Your task to perform on an android device: delete browsing data in the chrome app Image 0: 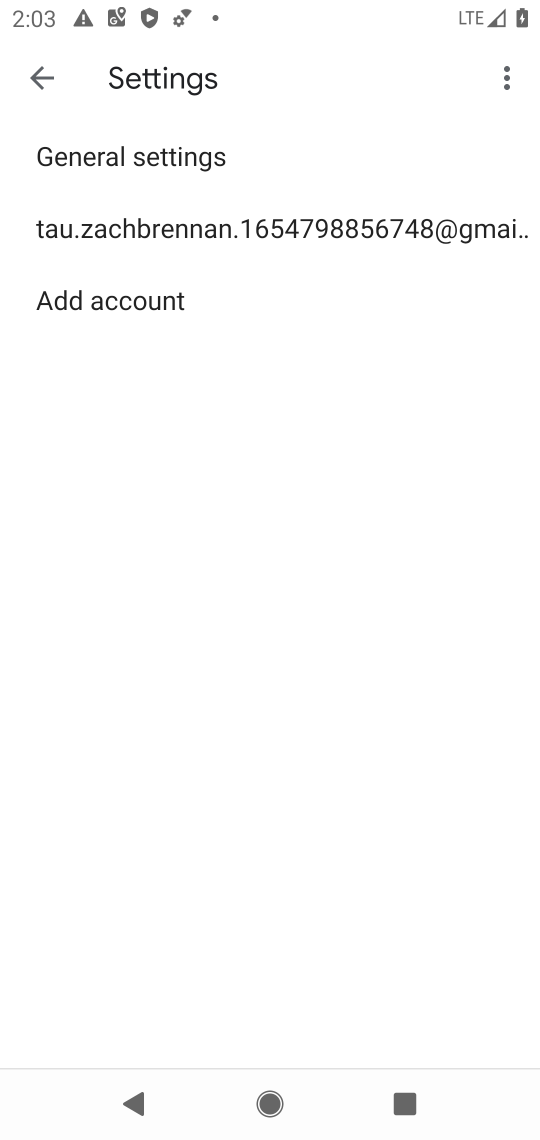
Step 0: press home button
Your task to perform on an android device: delete browsing data in the chrome app Image 1: 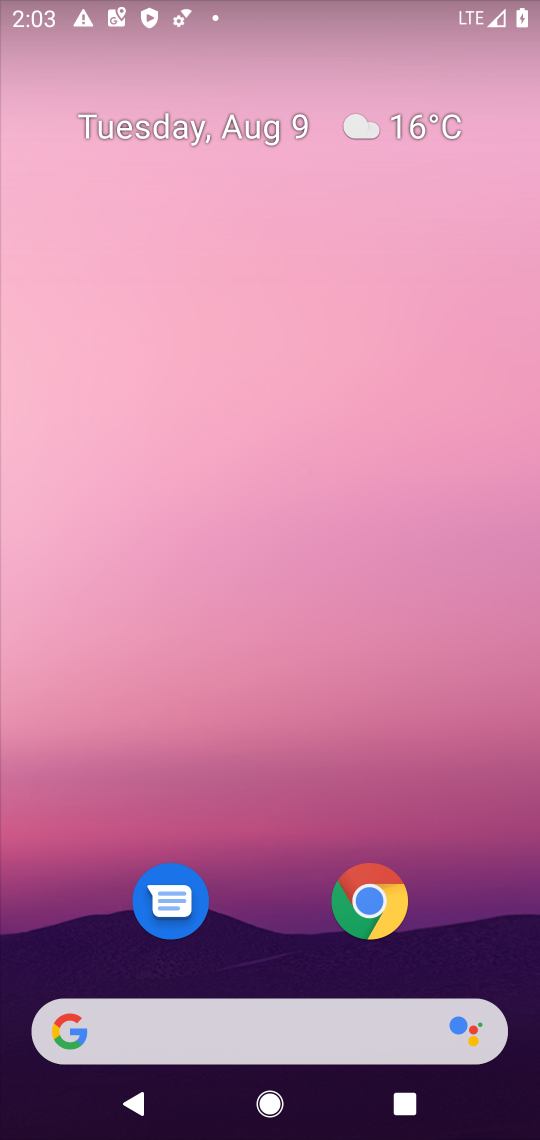
Step 1: click (369, 904)
Your task to perform on an android device: delete browsing data in the chrome app Image 2: 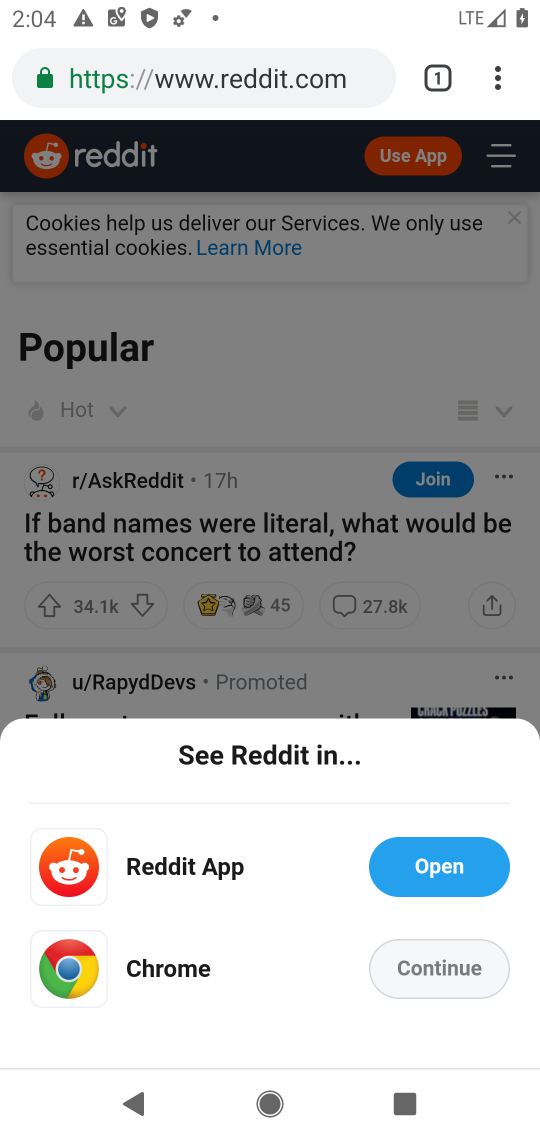
Step 2: click (487, 80)
Your task to perform on an android device: delete browsing data in the chrome app Image 3: 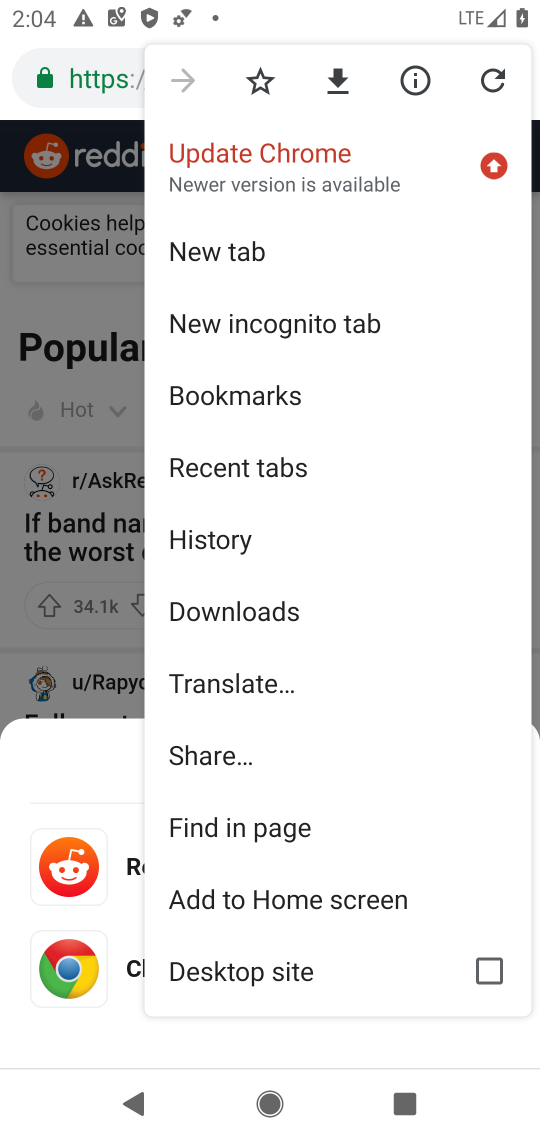
Step 3: click (239, 539)
Your task to perform on an android device: delete browsing data in the chrome app Image 4: 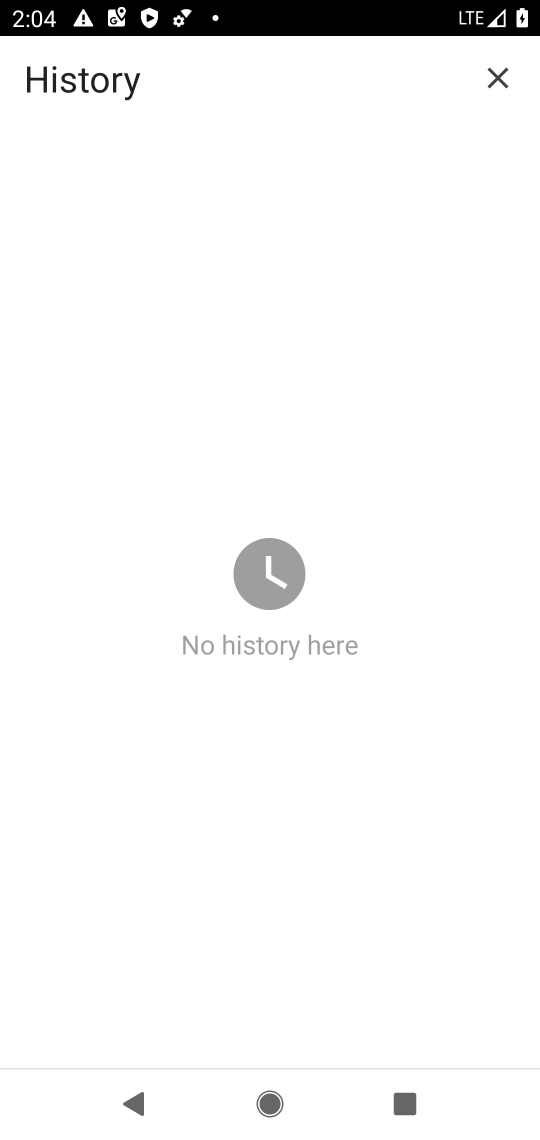
Step 4: task complete